Your task to perform on an android device: star an email in the gmail app Image 0: 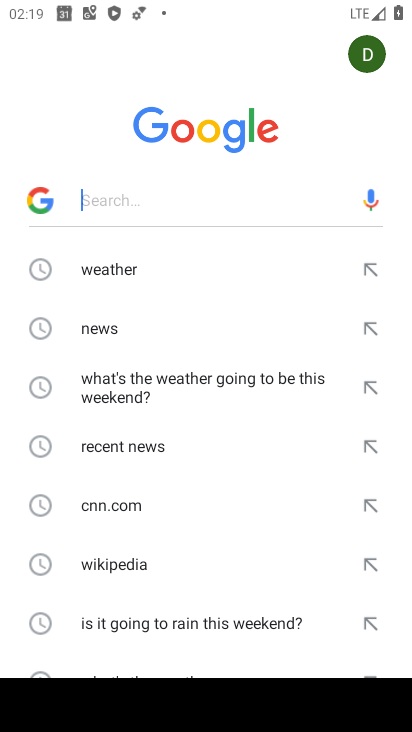
Step 0: press home button
Your task to perform on an android device: star an email in the gmail app Image 1: 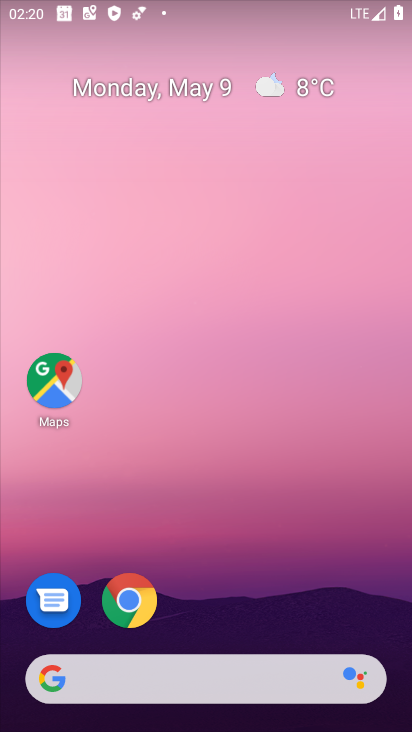
Step 1: drag from (224, 637) to (226, 57)
Your task to perform on an android device: star an email in the gmail app Image 2: 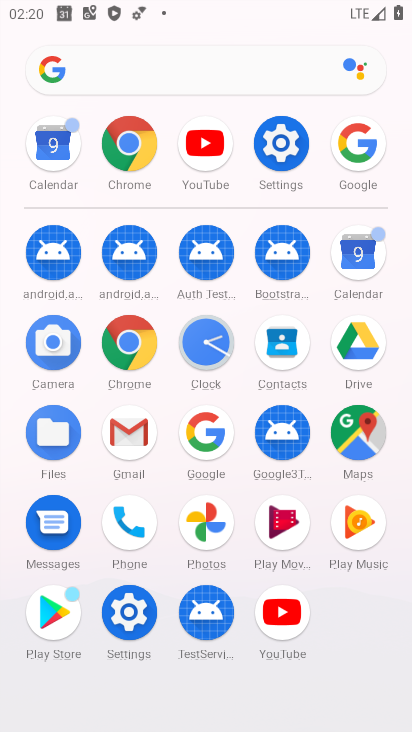
Step 2: click (129, 424)
Your task to perform on an android device: star an email in the gmail app Image 3: 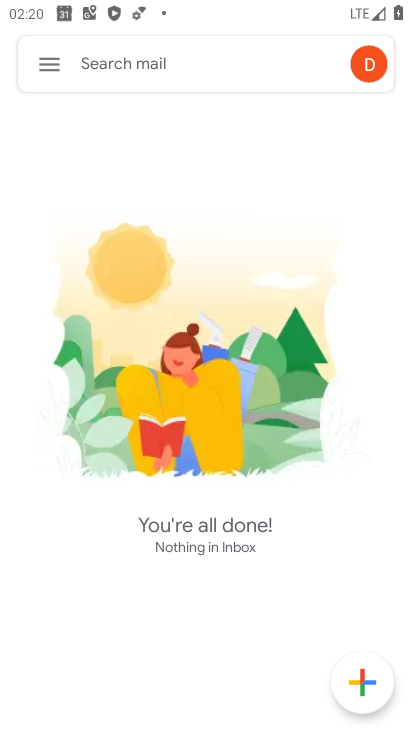
Step 3: click (46, 73)
Your task to perform on an android device: star an email in the gmail app Image 4: 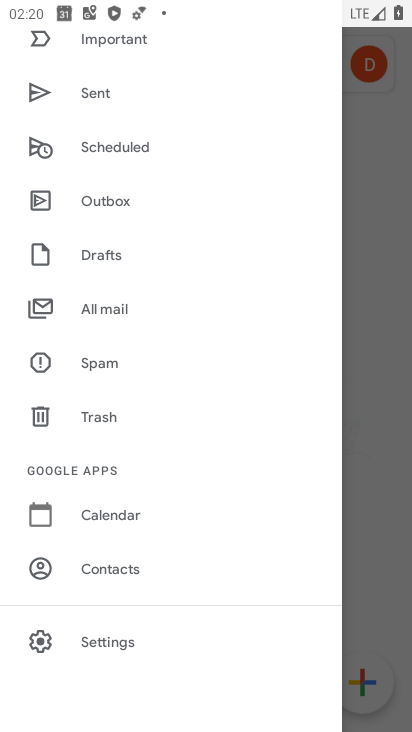
Step 4: click (115, 304)
Your task to perform on an android device: star an email in the gmail app Image 5: 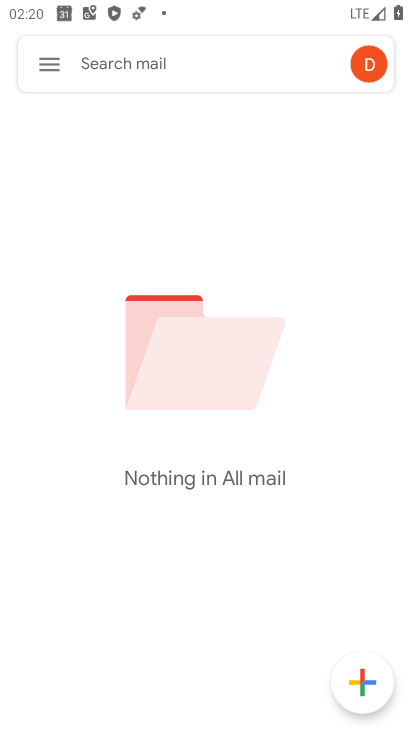
Step 5: task complete